Your task to perform on an android device: turn off improve location accuracy Image 0: 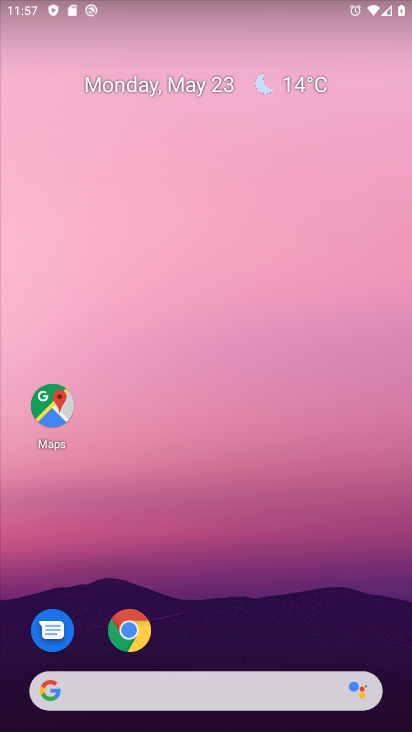
Step 0: drag from (326, 629) to (316, 159)
Your task to perform on an android device: turn off improve location accuracy Image 1: 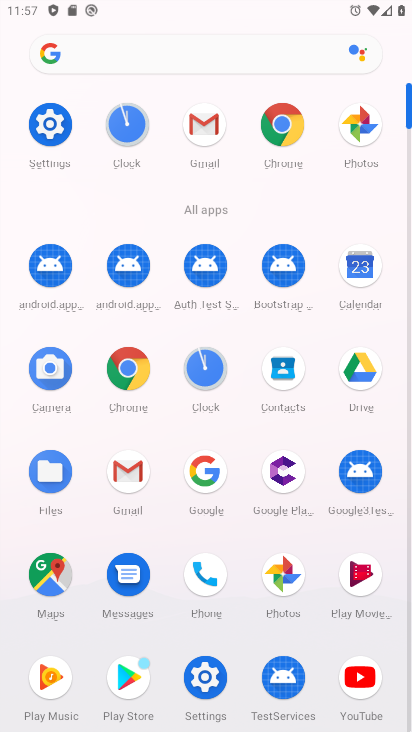
Step 1: click (65, 134)
Your task to perform on an android device: turn off improve location accuracy Image 2: 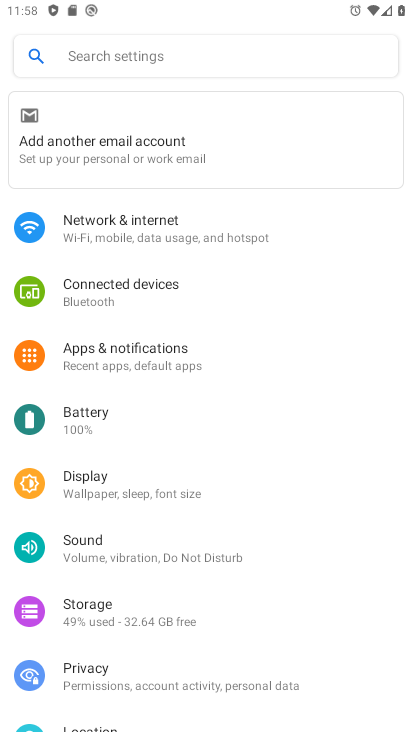
Step 2: drag from (228, 658) to (223, 292)
Your task to perform on an android device: turn off improve location accuracy Image 3: 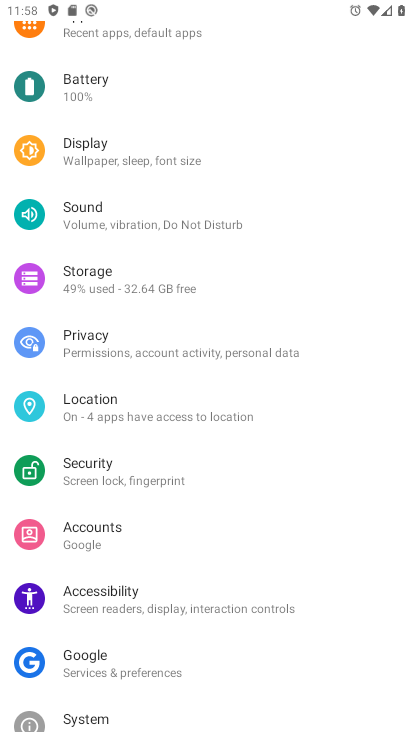
Step 3: click (139, 411)
Your task to perform on an android device: turn off improve location accuracy Image 4: 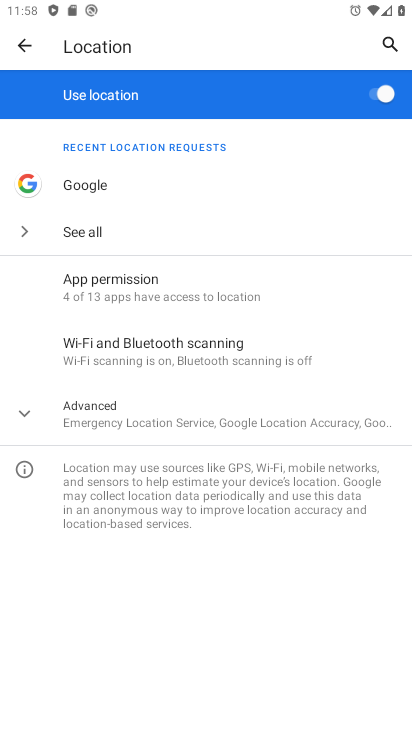
Step 4: click (139, 412)
Your task to perform on an android device: turn off improve location accuracy Image 5: 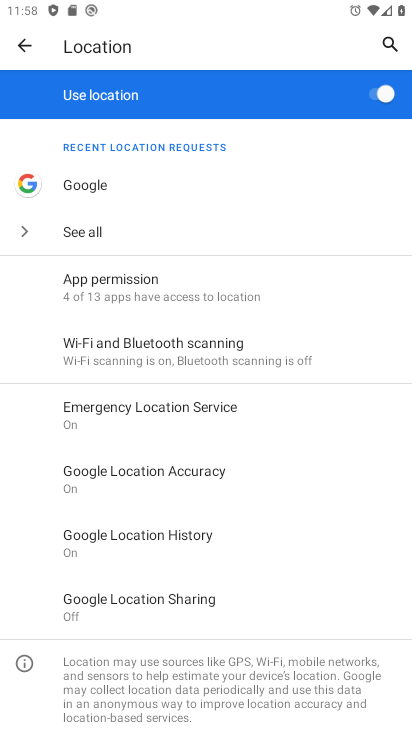
Step 5: click (159, 464)
Your task to perform on an android device: turn off improve location accuracy Image 6: 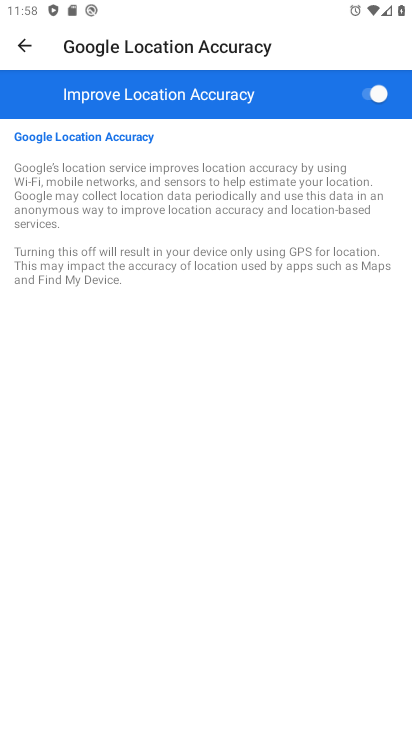
Step 6: click (375, 96)
Your task to perform on an android device: turn off improve location accuracy Image 7: 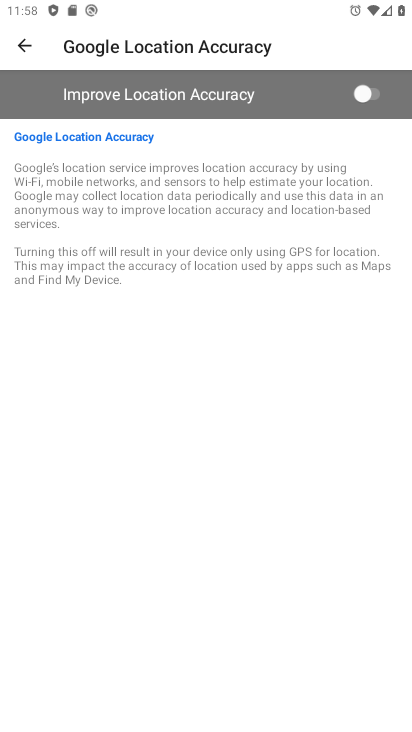
Step 7: task complete